Your task to perform on an android device: find photos in the google photos app Image 0: 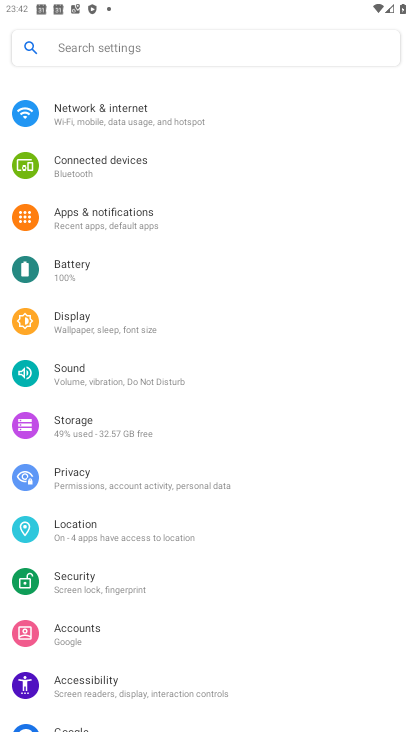
Step 0: drag from (252, 594) to (235, 339)
Your task to perform on an android device: find photos in the google photos app Image 1: 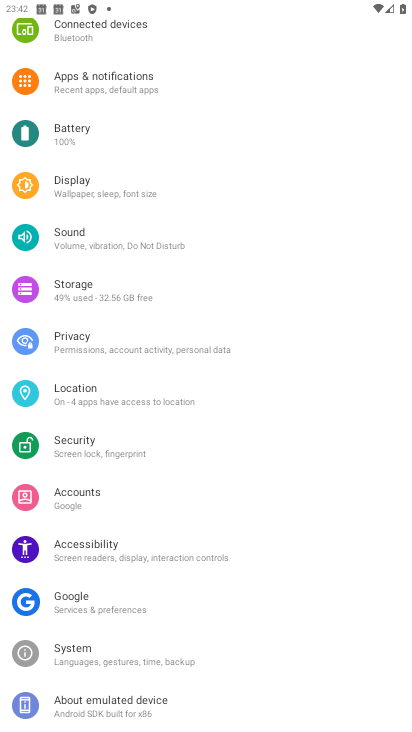
Step 1: press back button
Your task to perform on an android device: find photos in the google photos app Image 2: 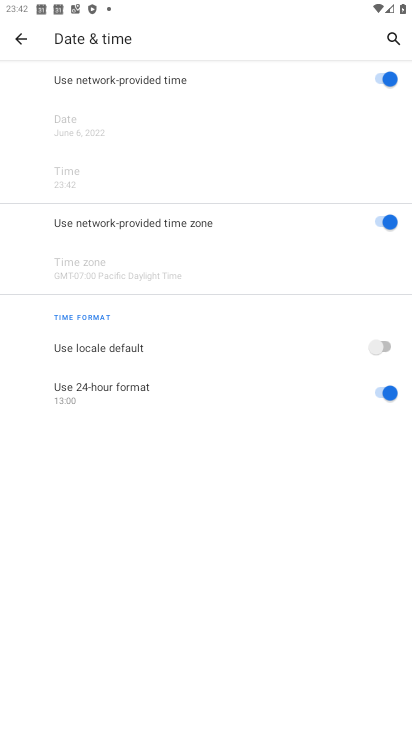
Step 2: press back button
Your task to perform on an android device: find photos in the google photos app Image 3: 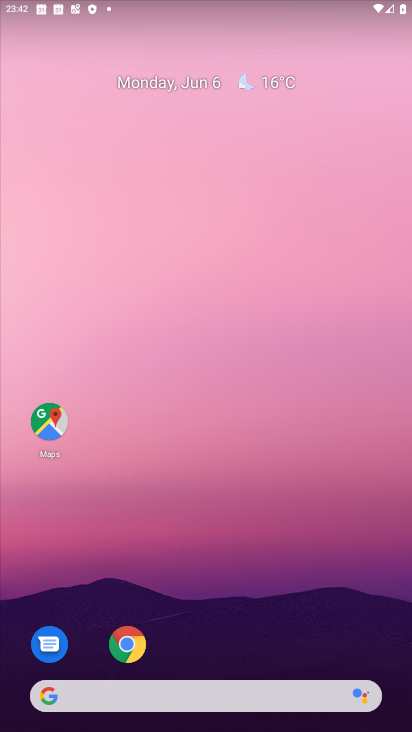
Step 3: drag from (241, 514) to (234, 63)
Your task to perform on an android device: find photos in the google photos app Image 4: 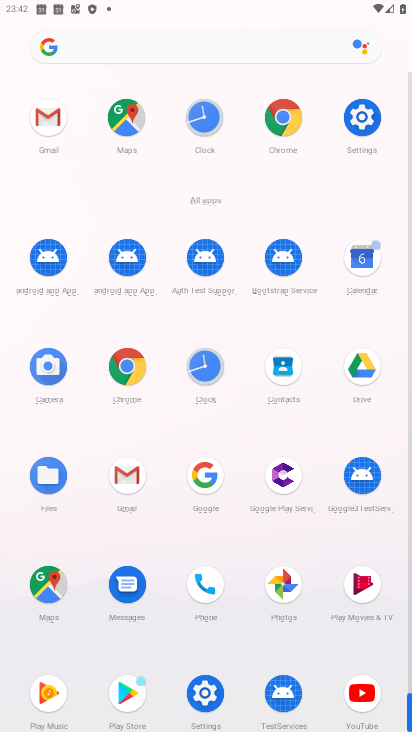
Step 4: click (283, 579)
Your task to perform on an android device: find photos in the google photos app Image 5: 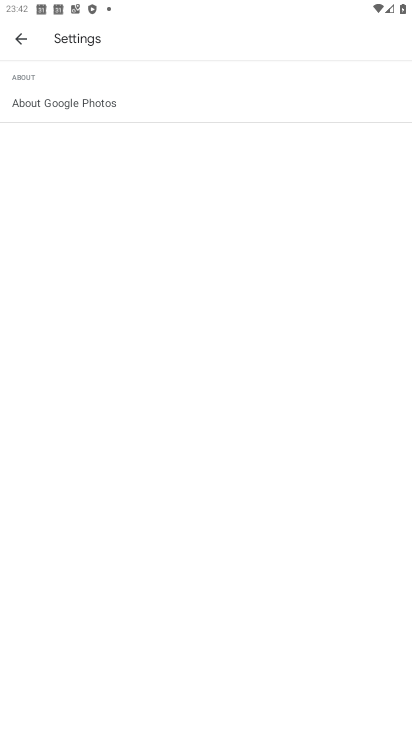
Step 5: click (22, 36)
Your task to perform on an android device: find photos in the google photos app Image 6: 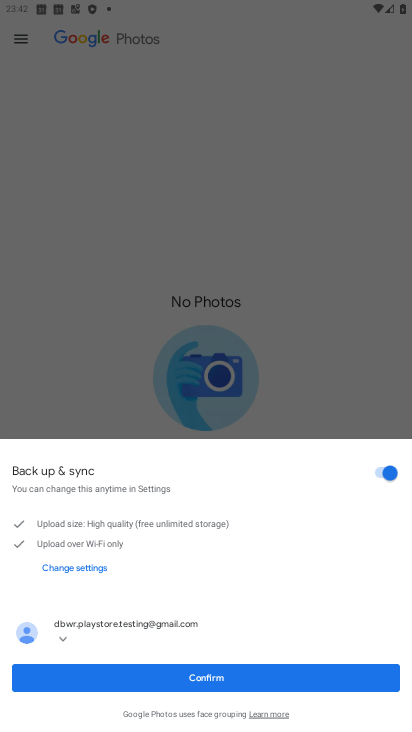
Step 6: click (215, 681)
Your task to perform on an android device: find photos in the google photos app Image 7: 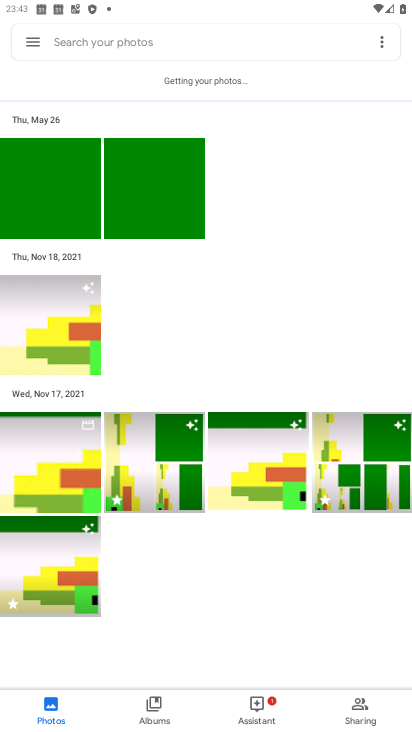
Step 7: task complete